Your task to perform on an android device: snooze an email in the gmail app Image 0: 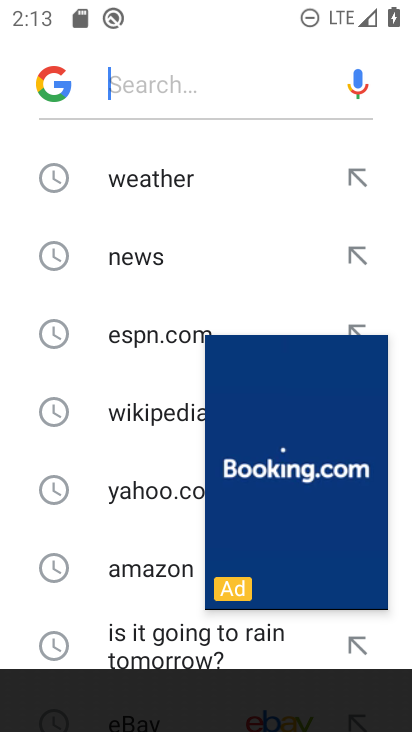
Step 0: drag from (354, 442) to (375, 688)
Your task to perform on an android device: snooze an email in the gmail app Image 1: 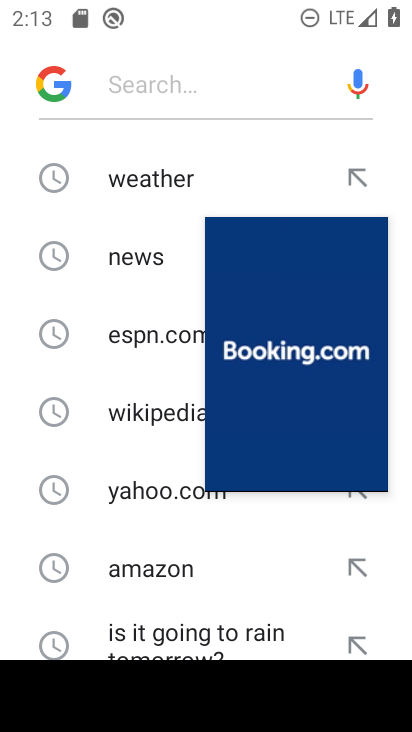
Step 1: drag from (322, 347) to (351, 719)
Your task to perform on an android device: snooze an email in the gmail app Image 2: 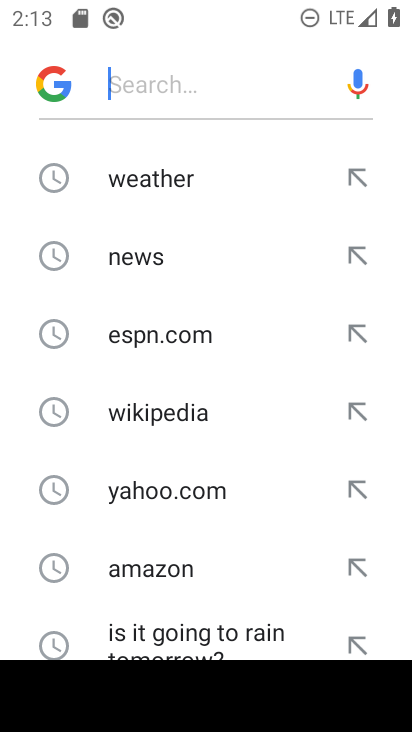
Step 2: press home button
Your task to perform on an android device: snooze an email in the gmail app Image 3: 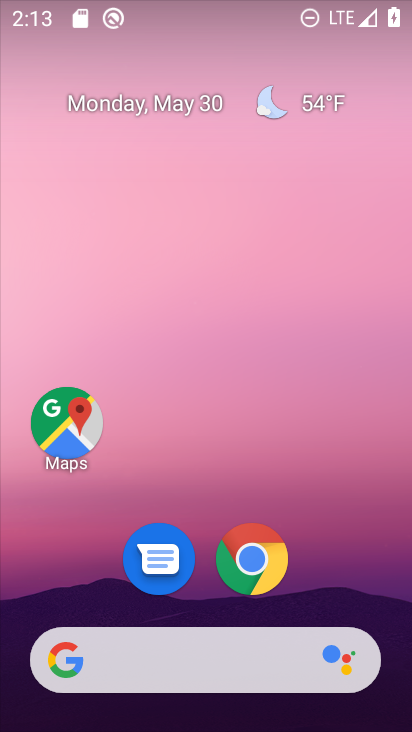
Step 3: drag from (325, 597) to (252, 66)
Your task to perform on an android device: snooze an email in the gmail app Image 4: 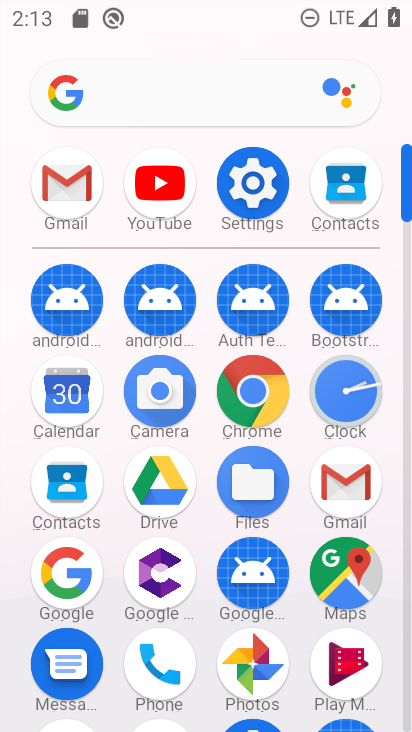
Step 4: click (336, 486)
Your task to perform on an android device: snooze an email in the gmail app Image 5: 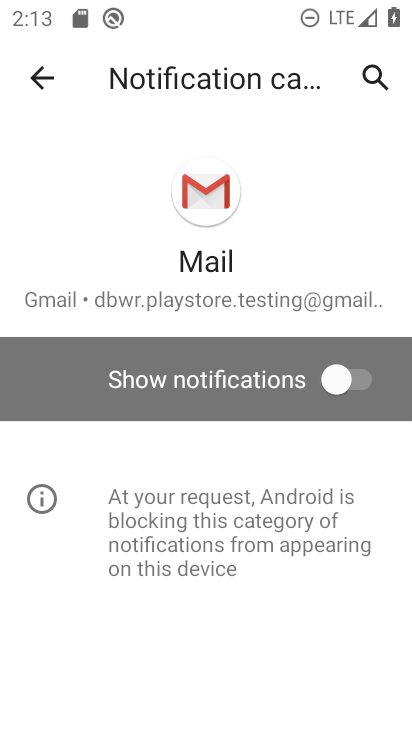
Step 5: click (48, 99)
Your task to perform on an android device: snooze an email in the gmail app Image 6: 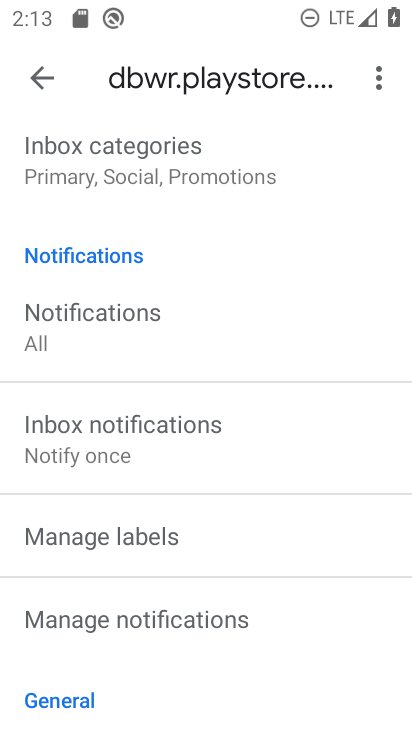
Step 6: click (45, 88)
Your task to perform on an android device: snooze an email in the gmail app Image 7: 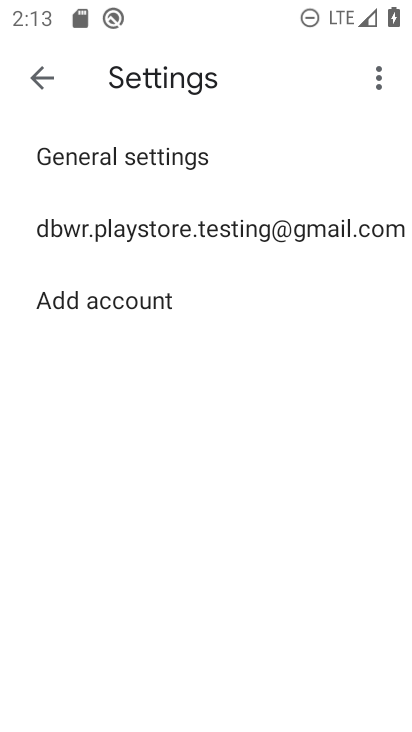
Step 7: click (46, 76)
Your task to perform on an android device: snooze an email in the gmail app Image 8: 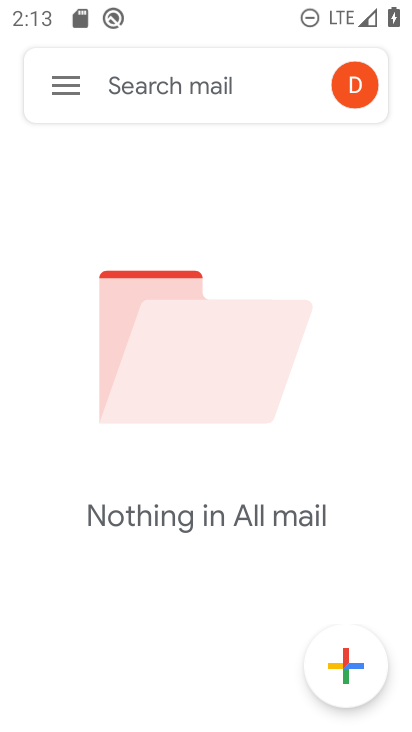
Step 8: task complete